Your task to perform on an android device: Play the last video I watched on Youtube Image 0: 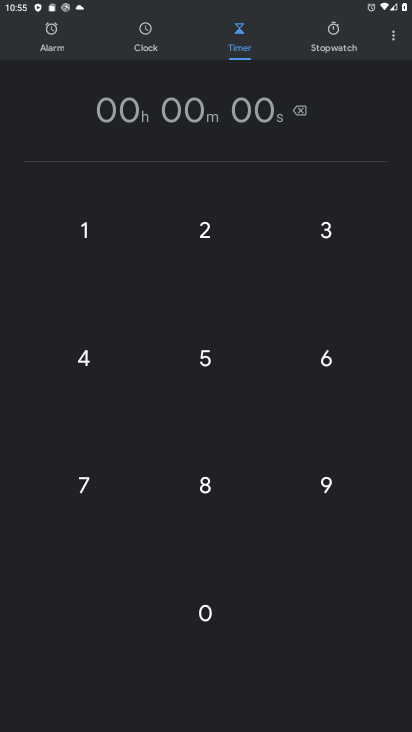
Step 0: press home button
Your task to perform on an android device: Play the last video I watched on Youtube Image 1: 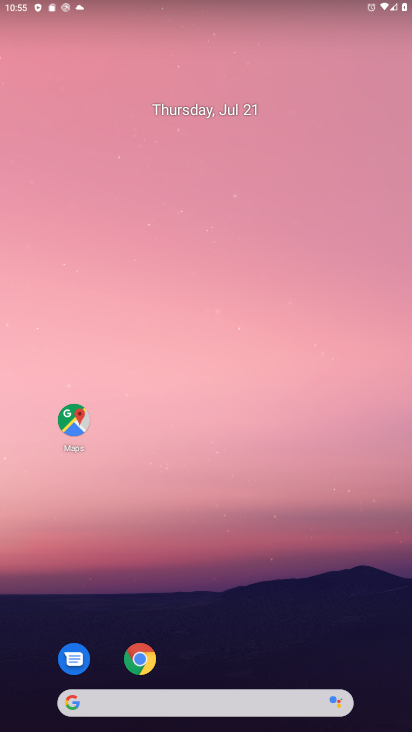
Step 1: drag from (215, 664) to (185, 88)
Your task to perform on an android device: Play the last video I watched on Youtube Image 2: 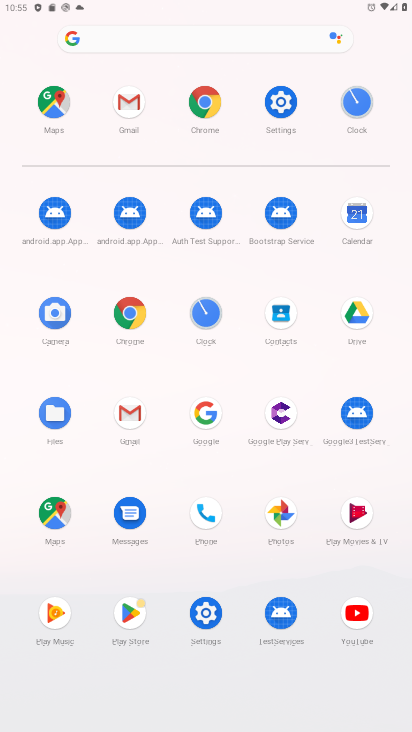
Step 2: click (358, 598)
Your task to perform on an android device: Play the last video I watched on Youtube Image 3: 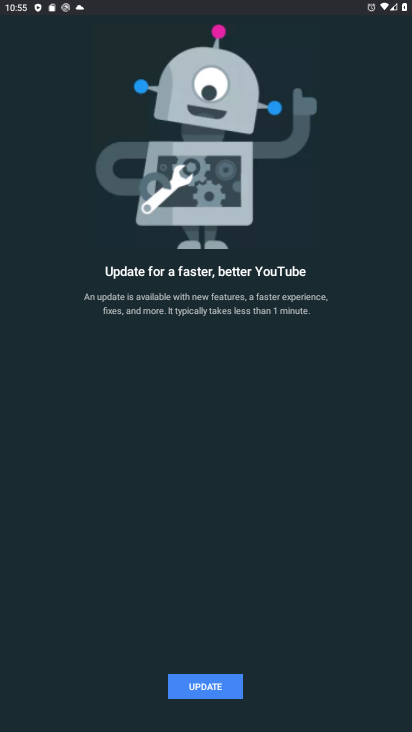
Step 3: click (171, 685)
Your task to perform on an android device: Play the last video I watched on Youtube Image 4: 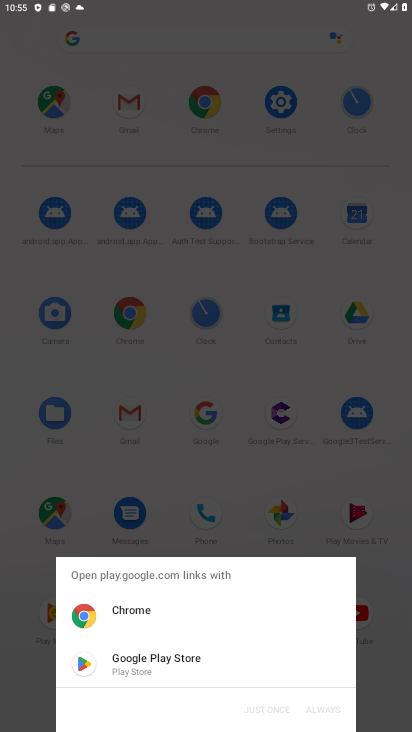
Step 4: click (178, 660)
Your task to perform on an android device: Play the last video I watched on Youtube Image 5: 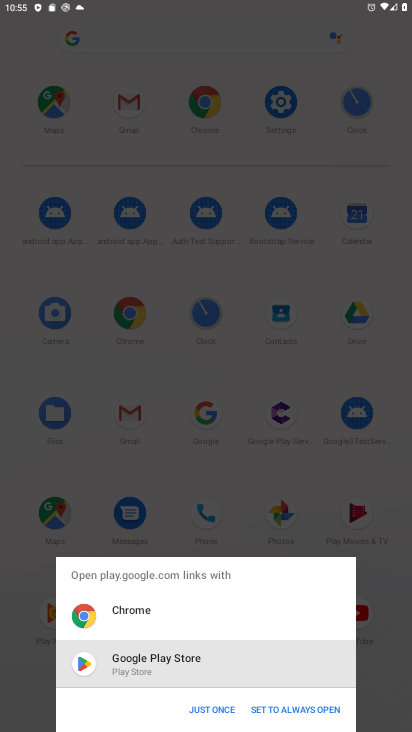
Step 5: click (202, 718)
Your task to perform on an android device: Play the last video I watched on Youtube Image 6: 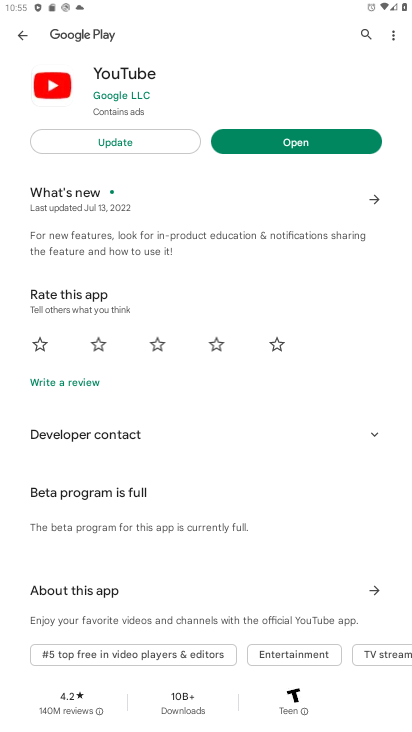
Step 6: click (120, 150)
Your task to perform on an android device: Play the last video I watched on Youtube Image 7: 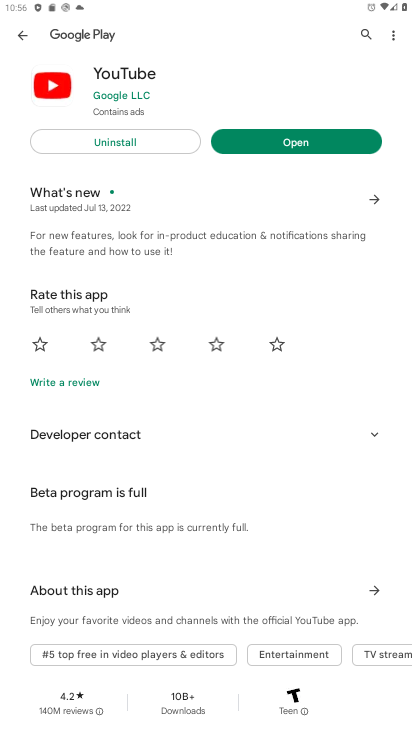
Step 7: click (269, 129)
Your task to perform on an android device: Play the last video I watched on Youtube Image 8: 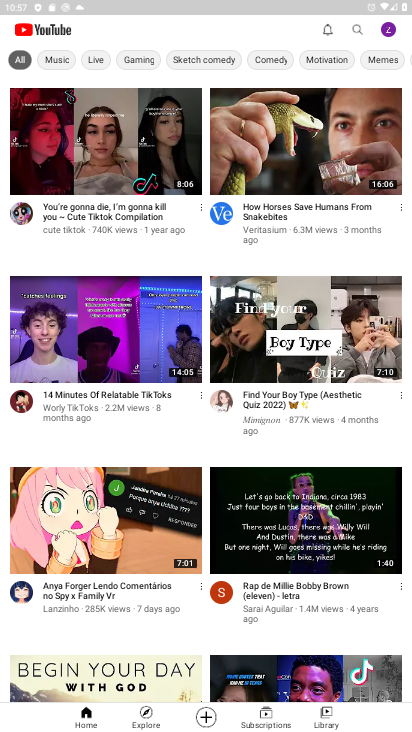
Step 8: click (325, 709)
Your task to perform on an android device: Play the last video I watched on Youtube Image 9: 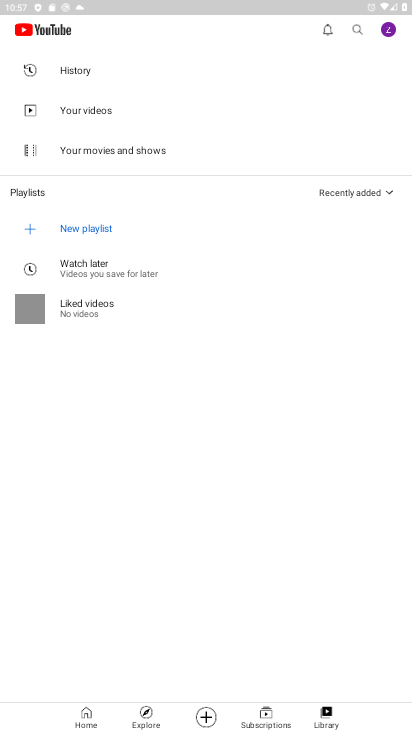
Step 9: click (73, 79)
Your task to perform on an android device: Play the last video I watched on Youtube Image 10: 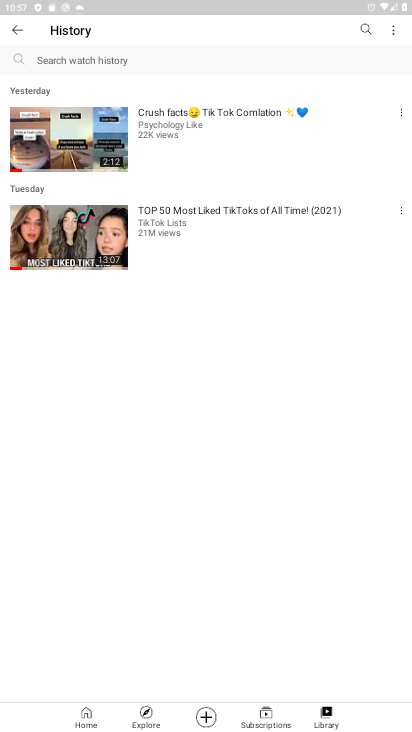
Step 10: task complete